Your task to perform on an android device: Open wifi settings Image 0: 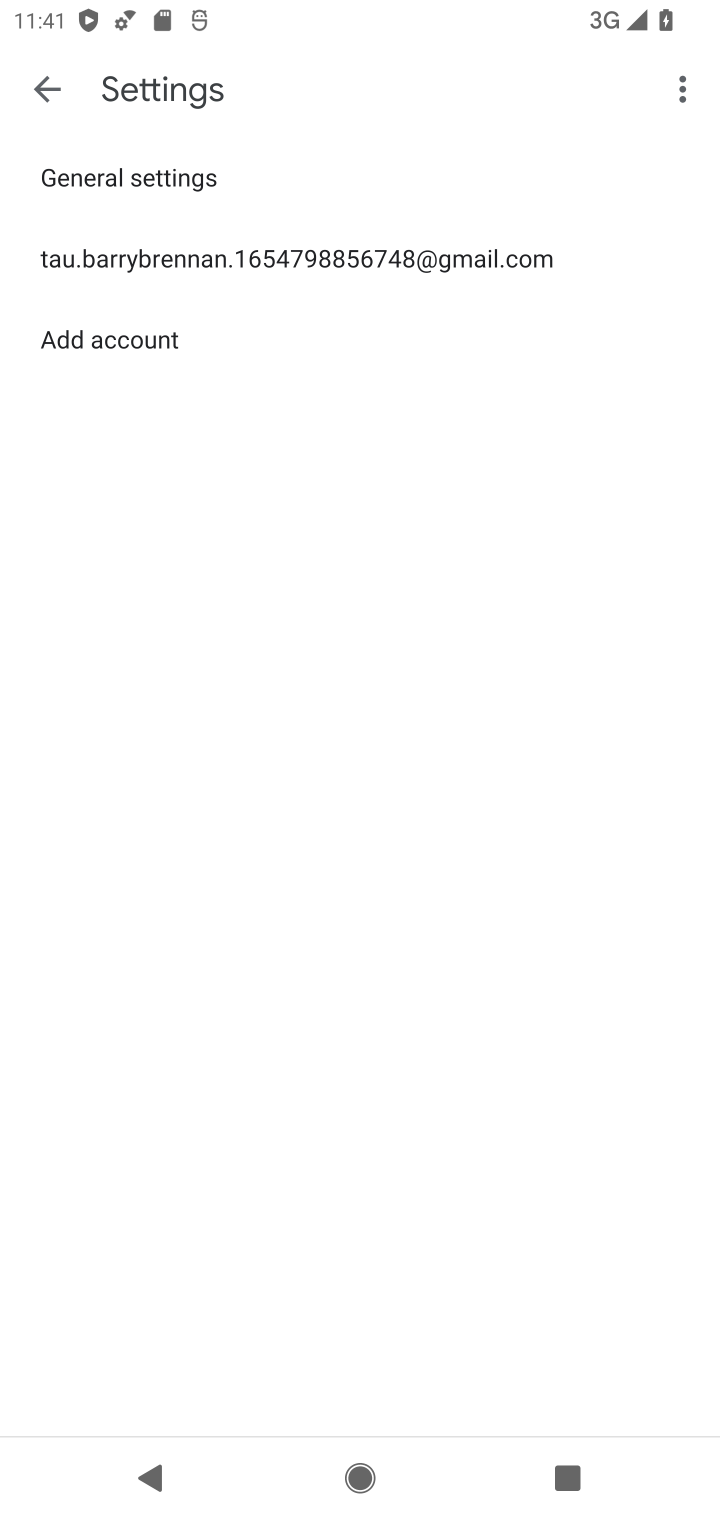
Step 0: press home button
Your task to perform on an android device: Open wifi settings Image 1: 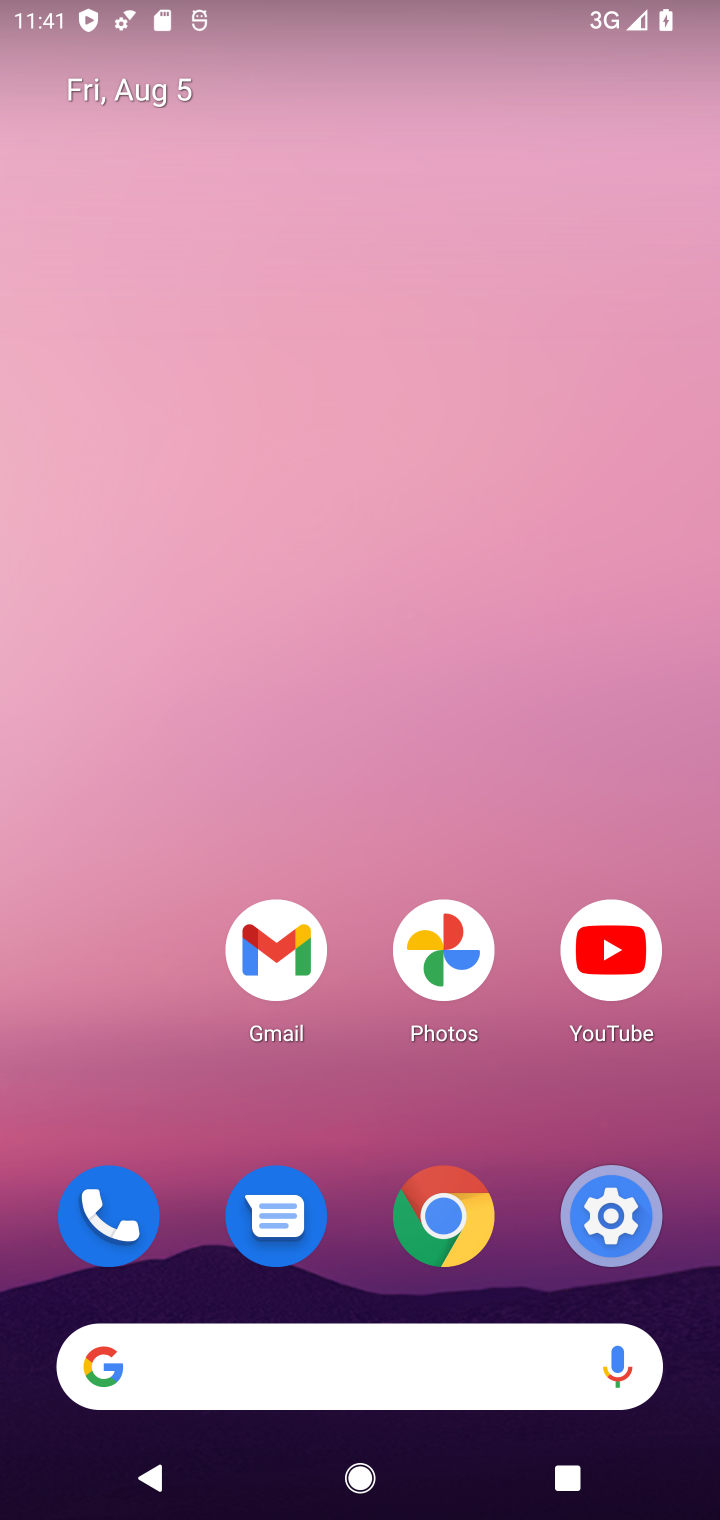
Step 1: drag from (345, 1345) to (330, 5)
Your task to perform on an android device: Open wifi settings Image 2: 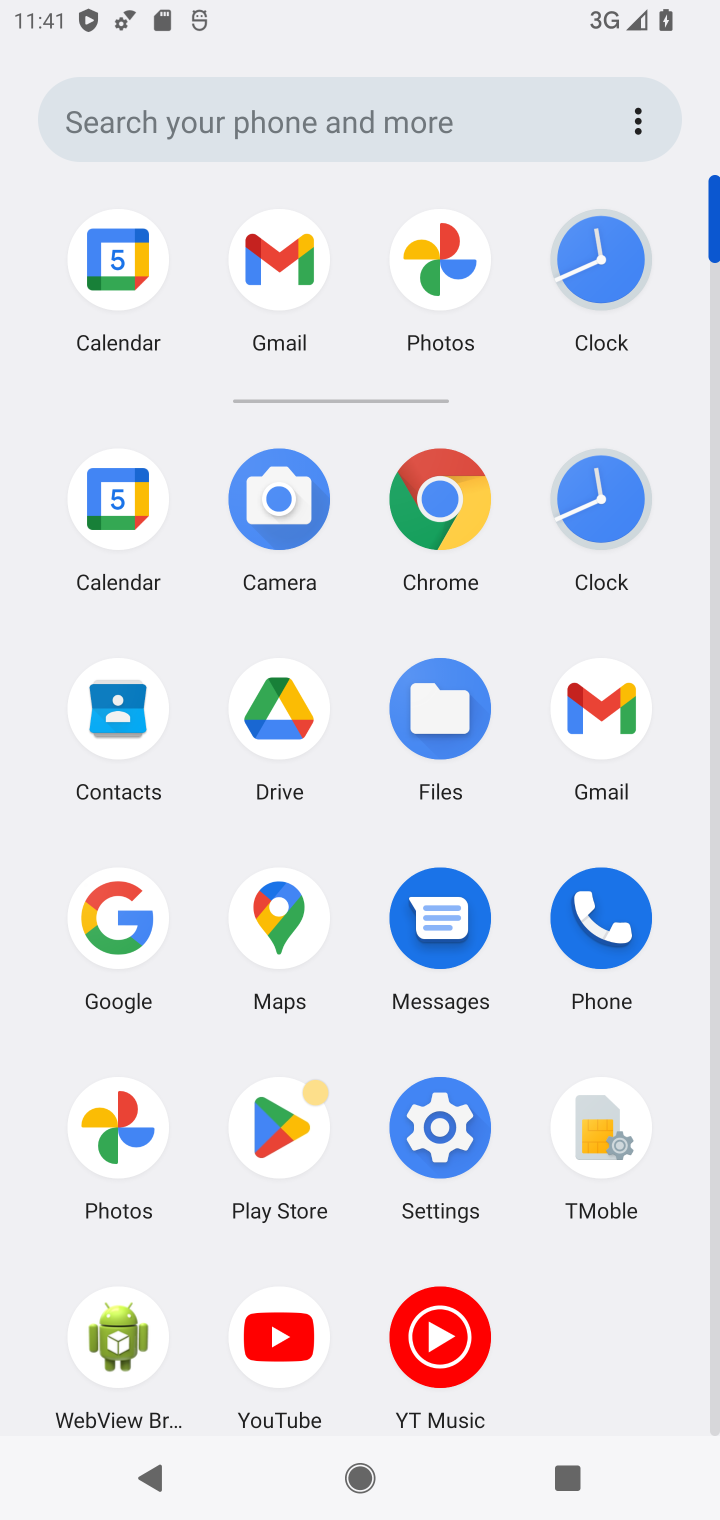
Step 2: click (444, 1091)
Your task to perform on an android device: Open wifi settings Image 3: 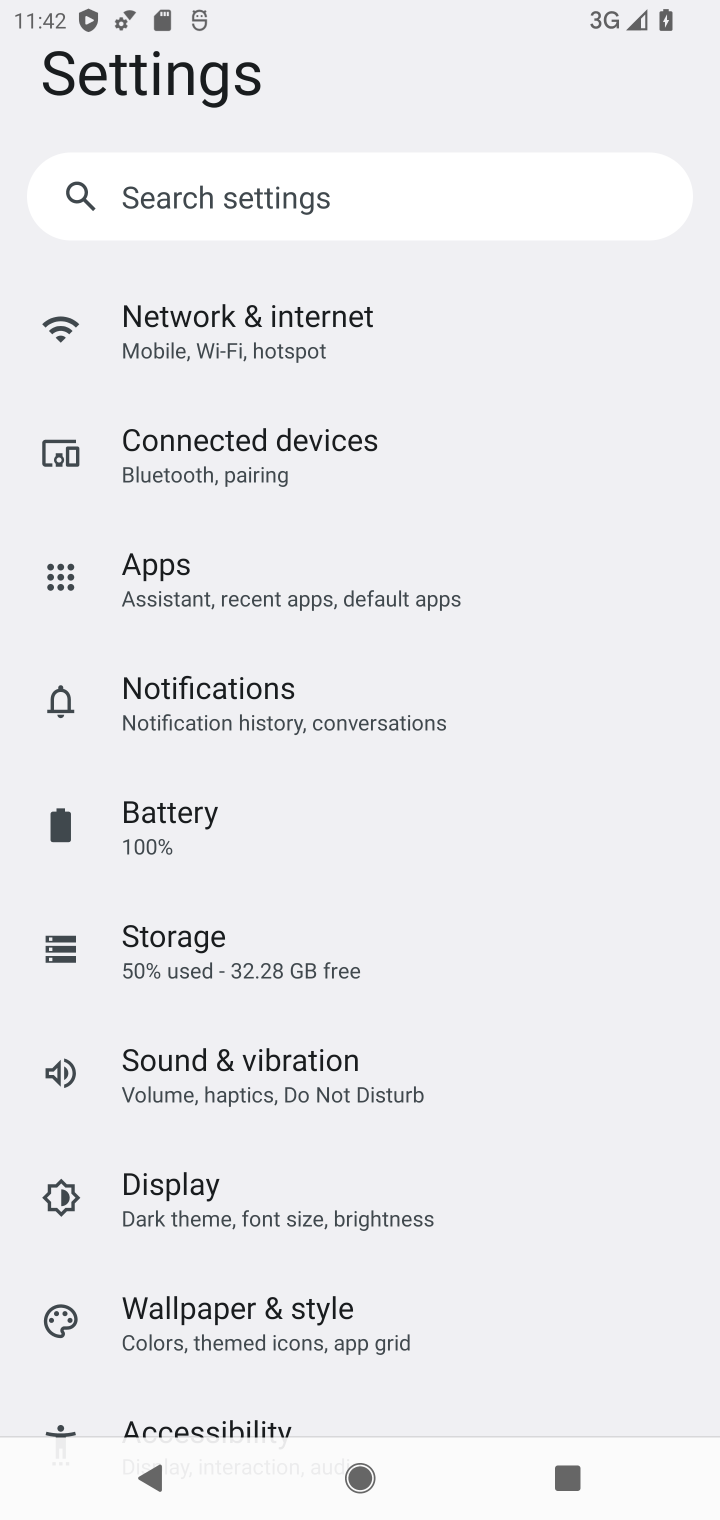
Step 3: click (273, 328)
Your task to perform on an android device: Open wifi settings Image 4: 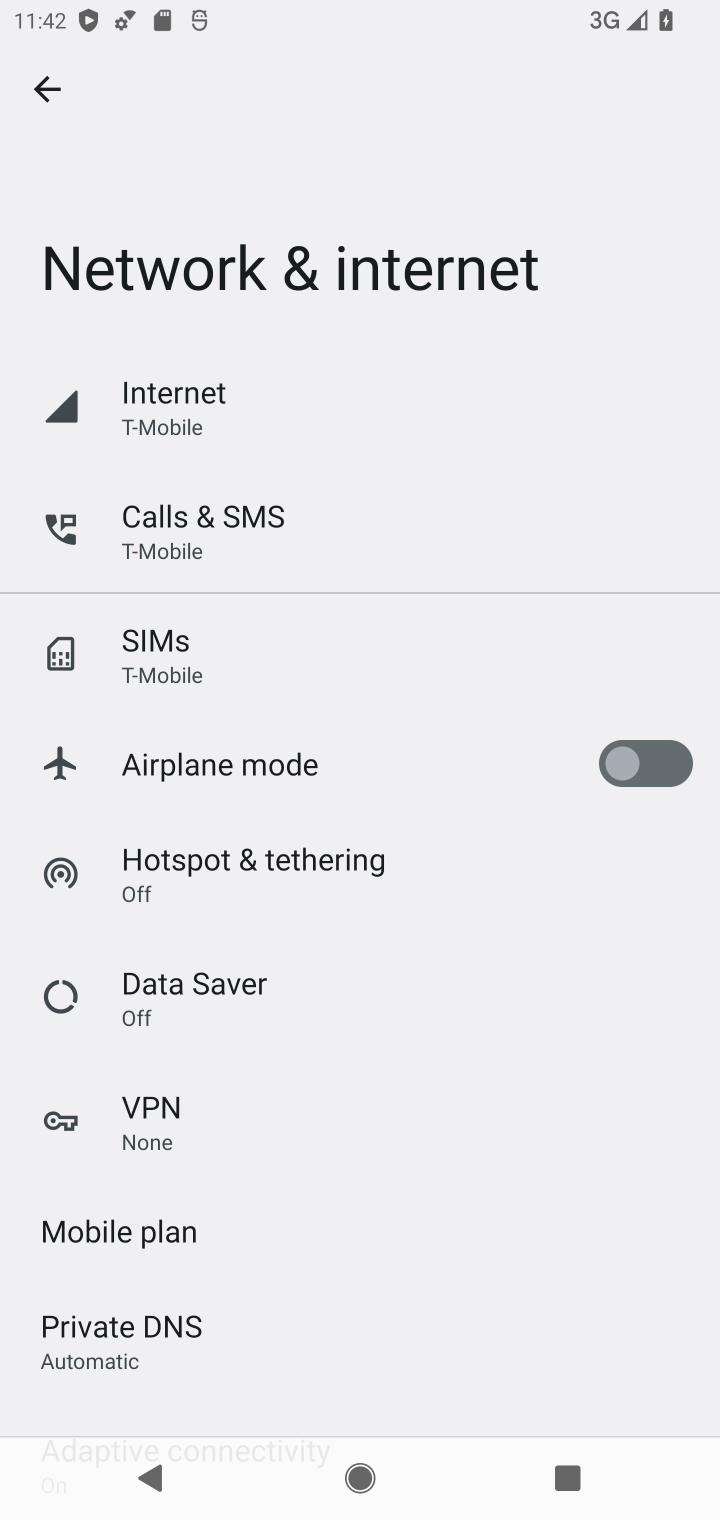
Step 4: click (183, 390)
Your task to perform on an android device: Open wifi settings Image 5: 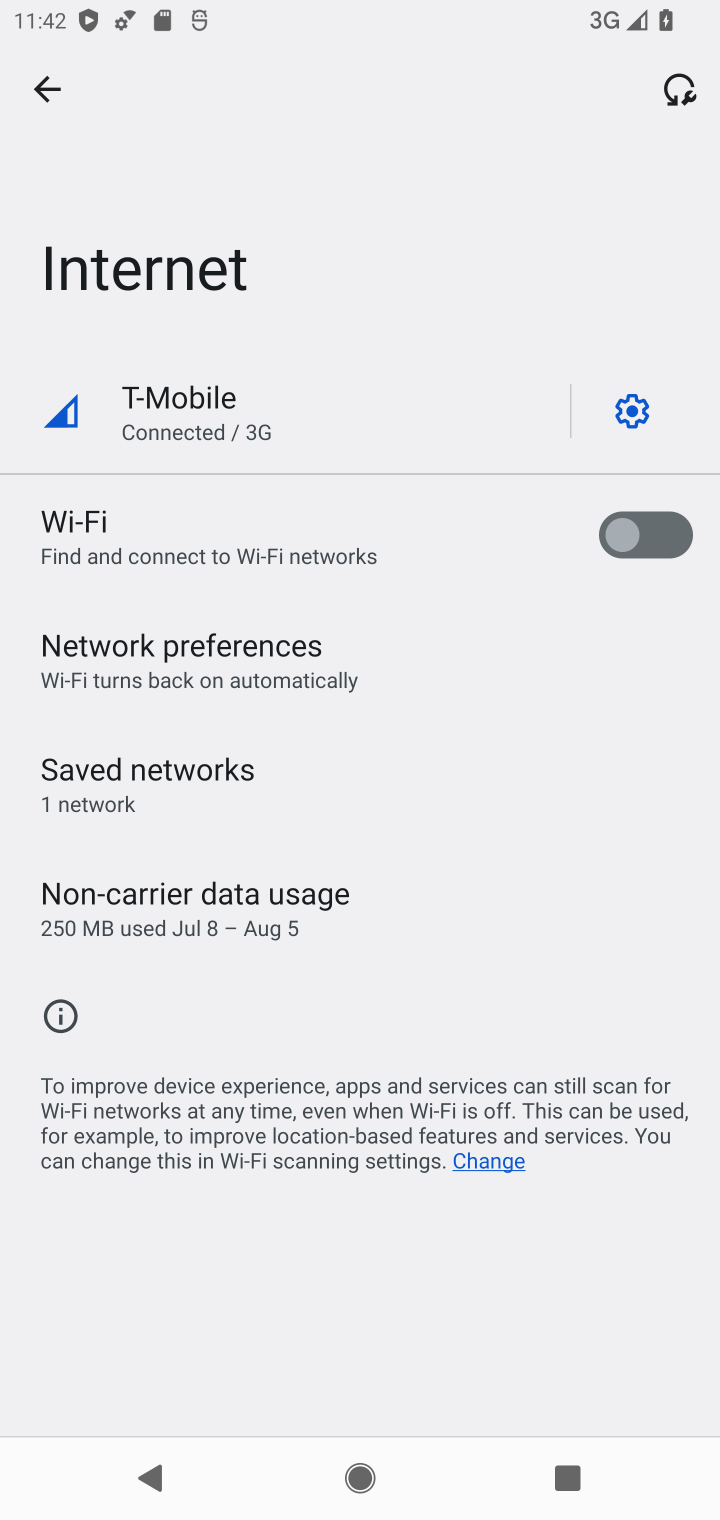
Step 5: task complete